Your task to perform on an android device: turn on the 12-hour format for clock Image 0: 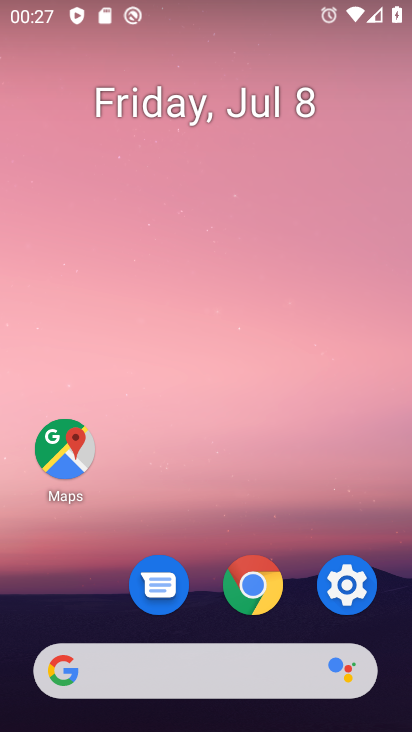
Step 0: drag from (262, 667) to (254, 103)
Your task to perform on an android device: turn on the 12-hour format for clock Image 1: 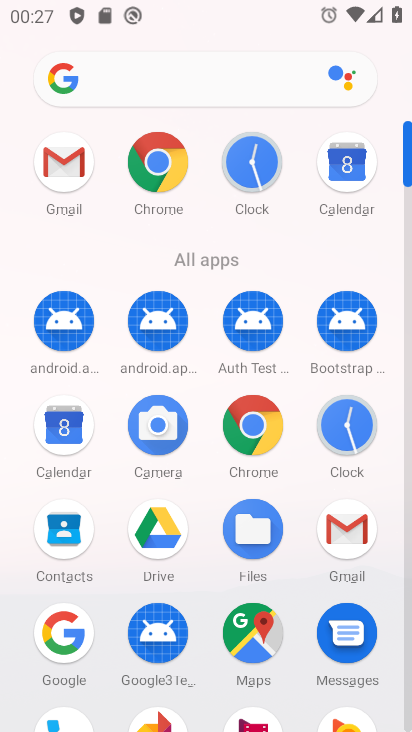
Step 1: click (344, 423)
Your task to perform on an android device: turn on the 12-hour format for clock Image 2: 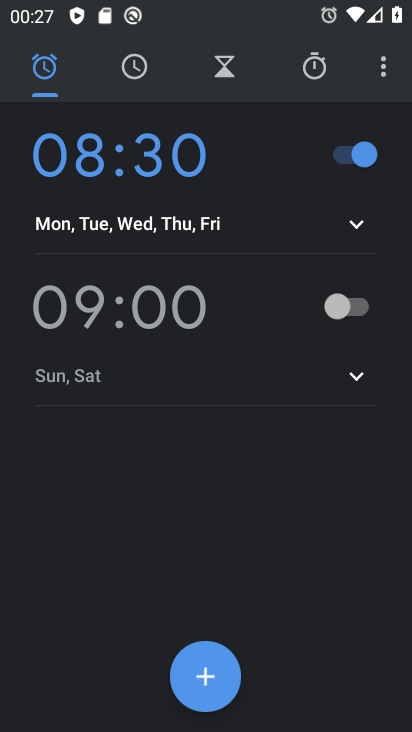
Step 2: click (388, 55)
Your task to perform on an android device: turn on the 12-hour format for clock Image 3: 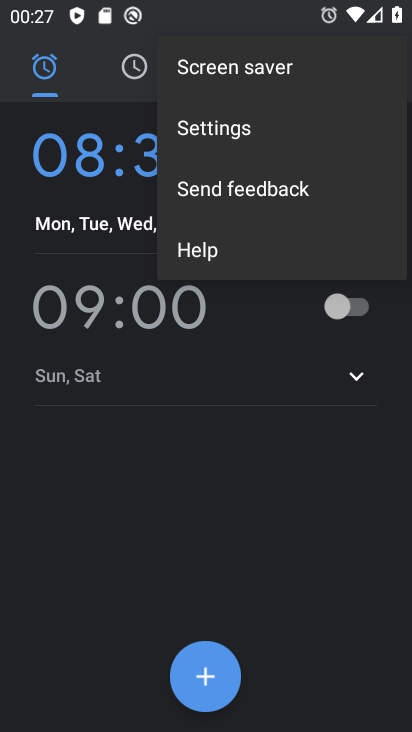
Step 3: click (287, 128)
Your task to perform on an android device: turn on the 12-hour format for clock Image 4: 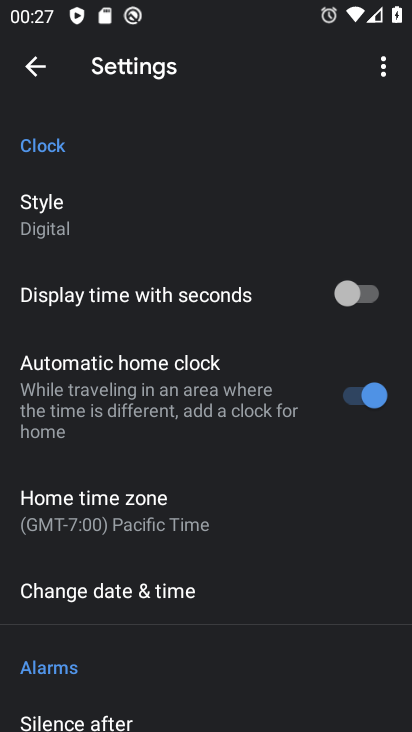
Step 4: click (223, 579)
Your task to perform on an android device: turn on the 12-hour format for clock Image 5: 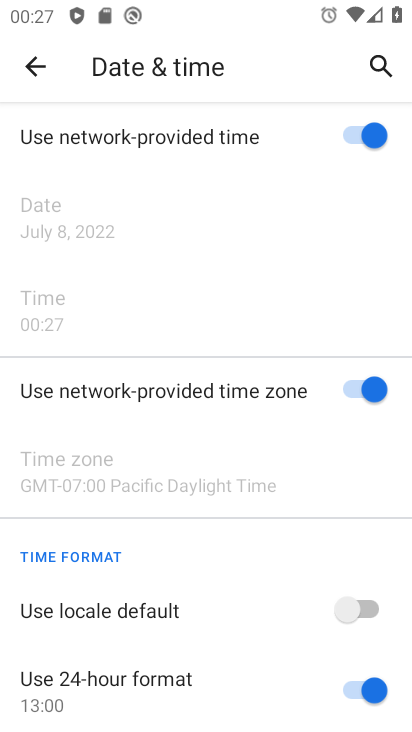
Step 5: drag from (339, 541) to (385, 426)
Your task to perform on an android device: turn on the 12-hour format for clock Image 6: 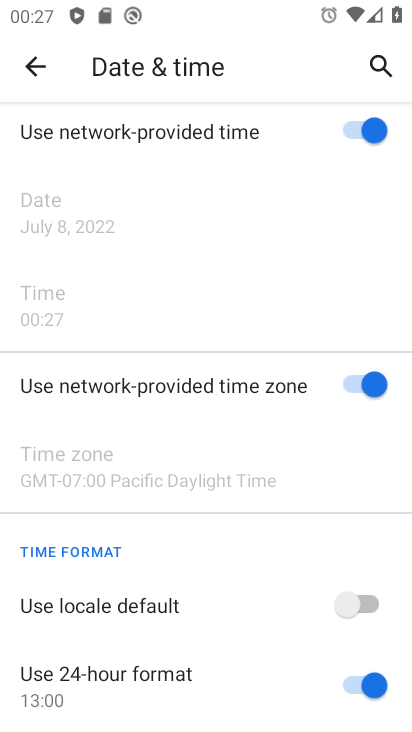
Step 6: click (365, 689)
Your task to perform on an android device: turn on the 12-hour format for clock Image 7: 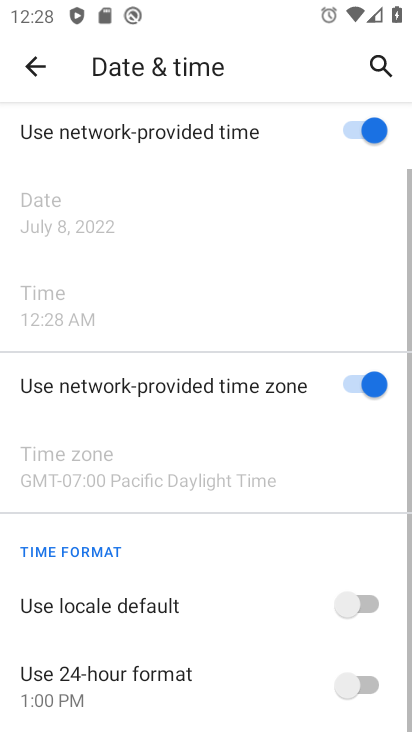
Step 7: task complete